Your task to perform on an android device: Install the Reddit app Image 0: 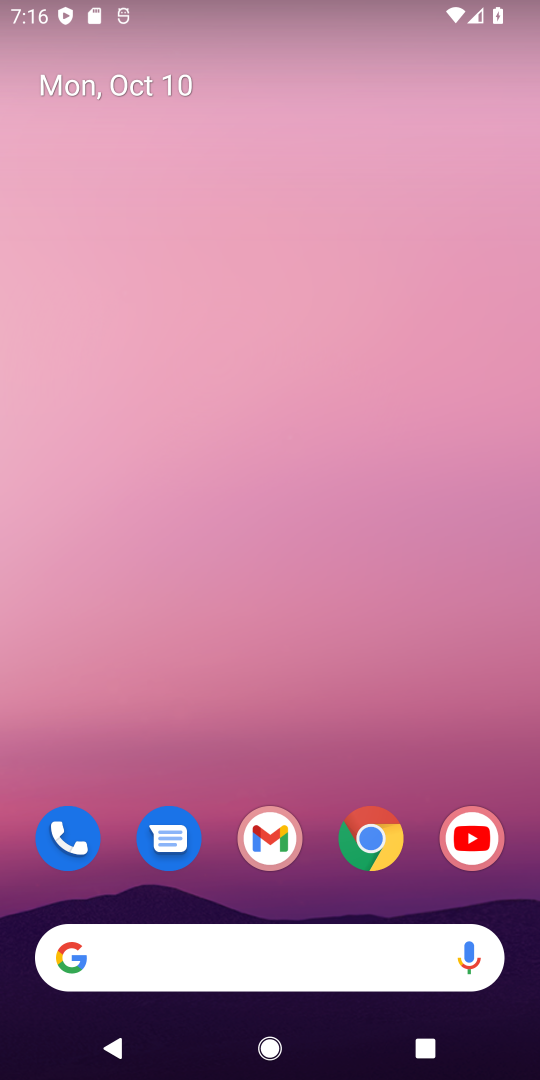
Step 0: drag from (331, 884) to (289, 35)
Your task to perform on an android device: Install the Reddit app Image 1: 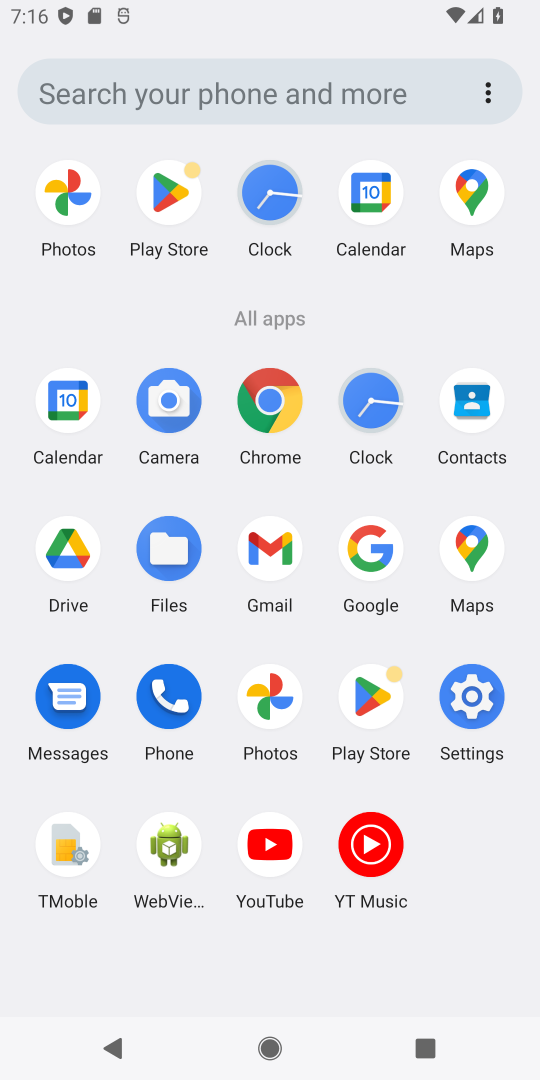
Step 1: click (369, 690)
Your task to perform on an android device: Install the Reddit app Image 2: 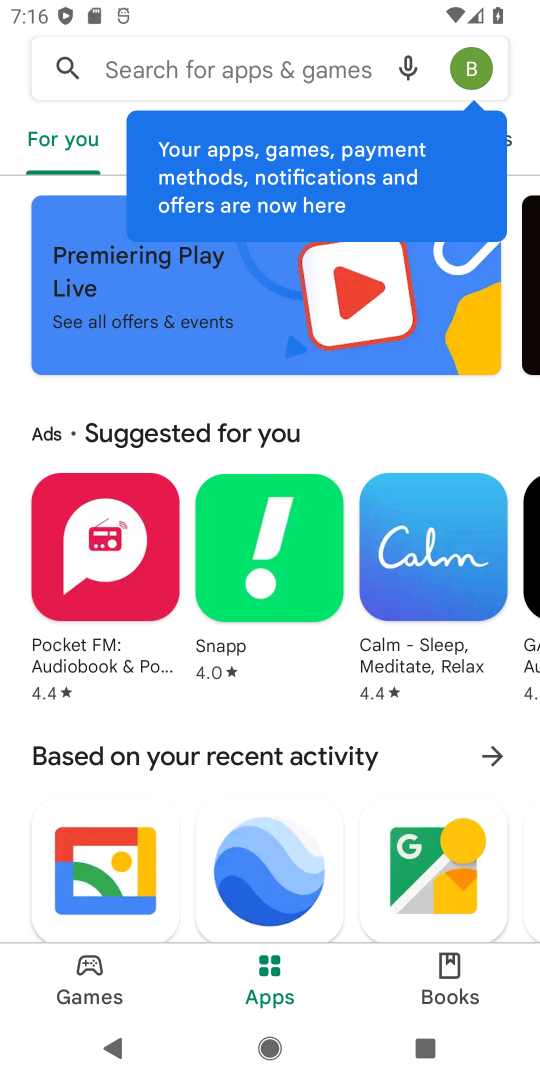
Step 2: click (181, 66)
Your task to perform on an android device: Install the Reddit app Image 3: 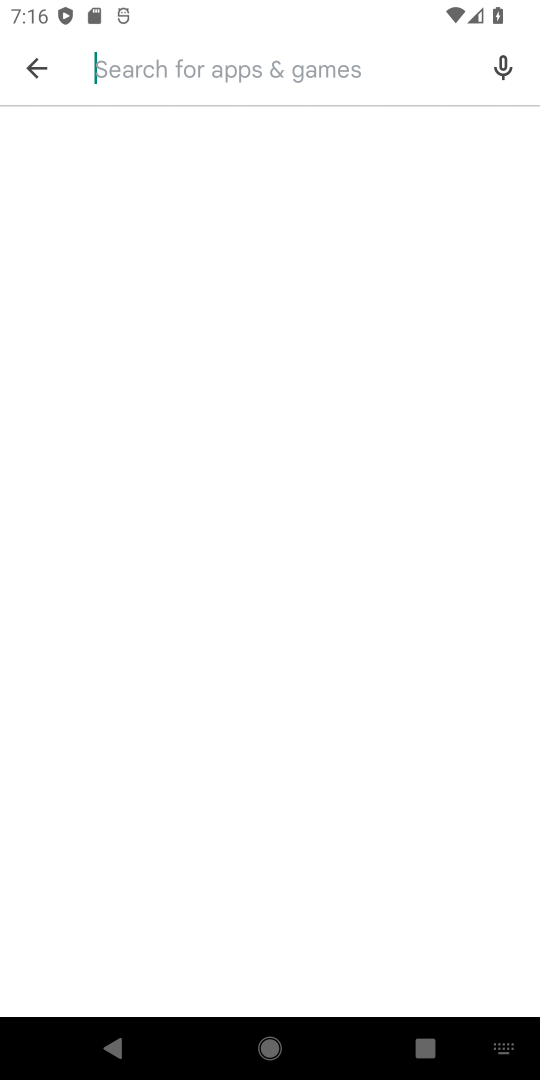
Step 3: type "reddit app"
Your task to perform on an android device: Install the Reddit app Image 4: 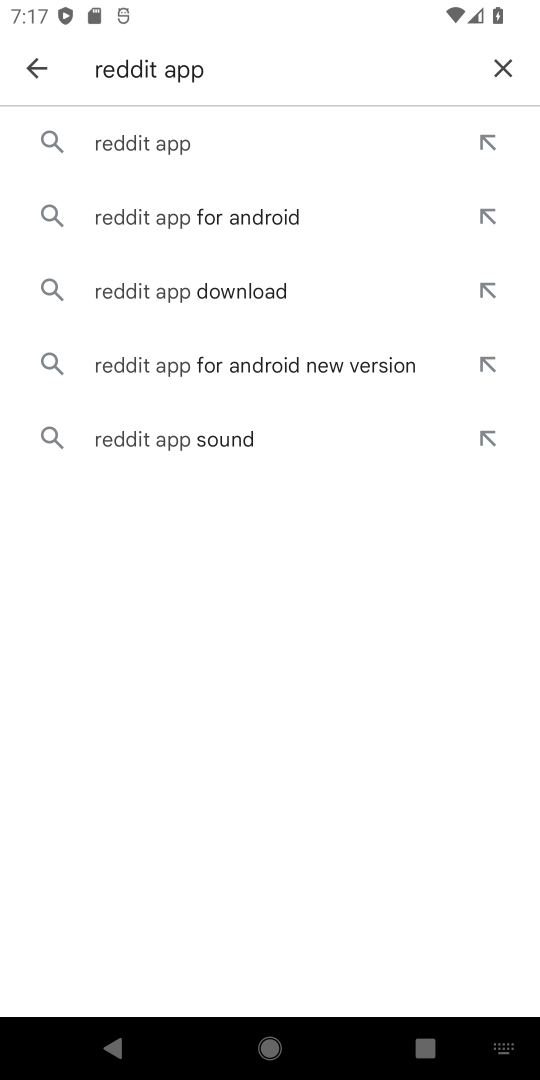
Step 4: click (145, 147)
Your task to perform on an android device: Install the Reddit app Image 5: 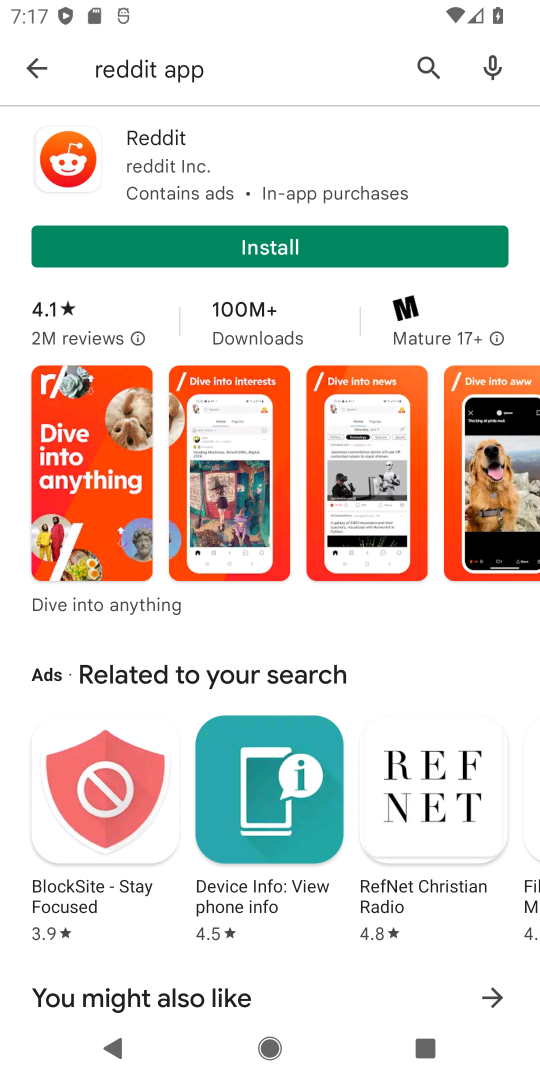
Step 5: click (251, 244)
Your task to perform on an android device: Install the Reddit app Image 6: 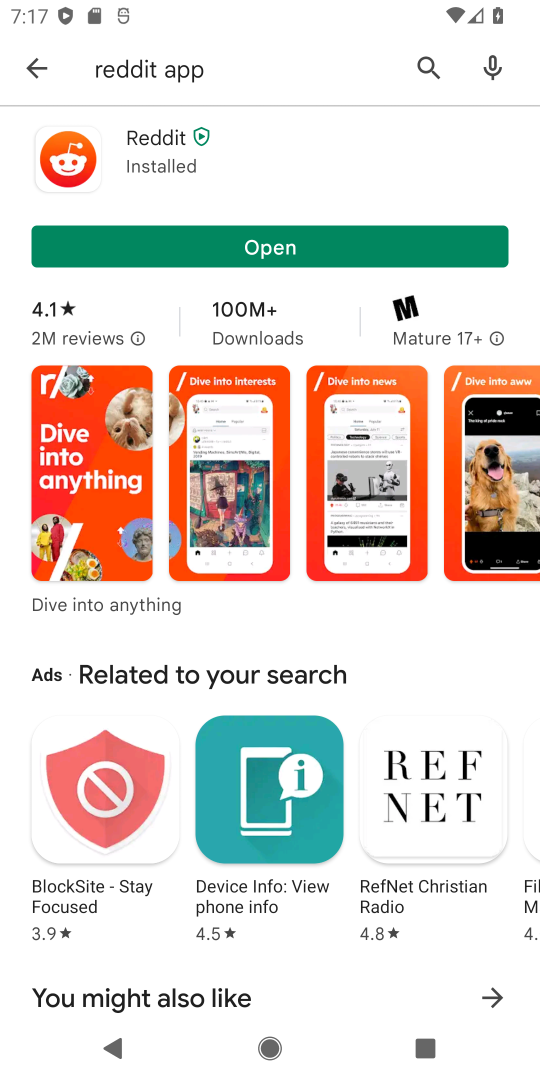
Step 6: click (273, 251)
Your task to perform on an android device: Install the Reddit app Image 7: 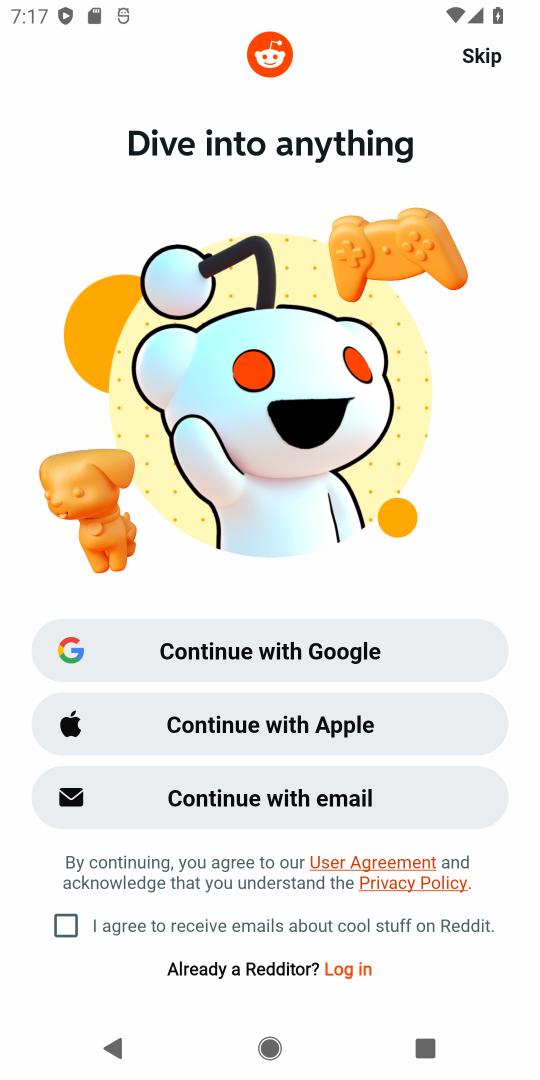
Step 7: click (481, 46)
Your task to perform on an android device: Install the Reddit app Image 8: 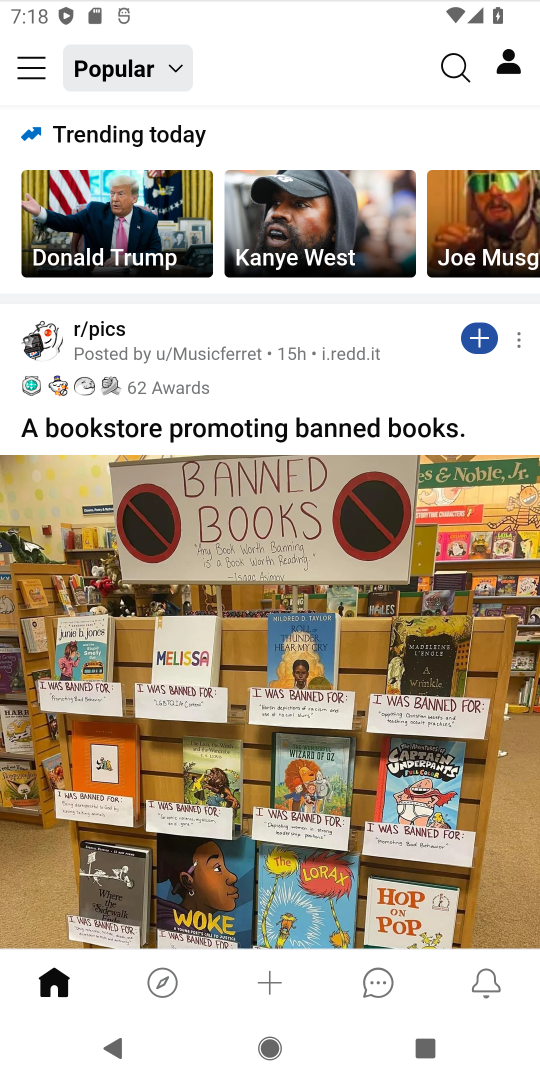
Step 8: task complete